Your task to perform on an android device: Open Google Chrome and click the shortcut for Amazon.com Image 0: 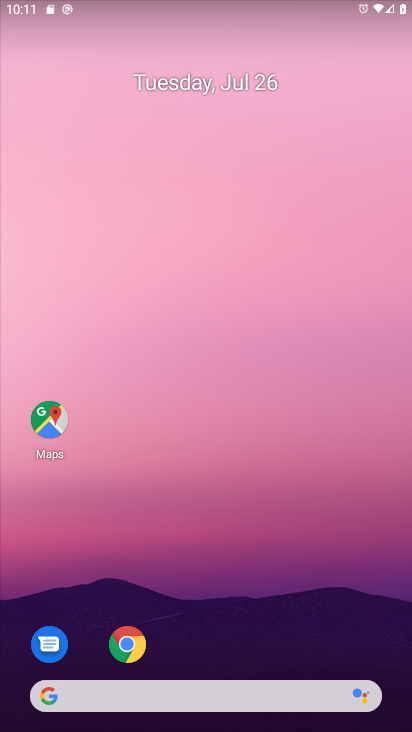
Step 0: click (130, 649)
Your task to perform on an android device: Open Google Chrome and click the shortcut for Amazon.com Image 1: 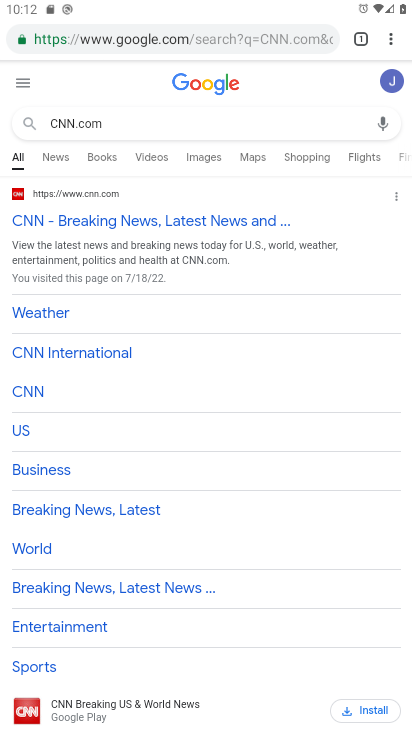
Step 1: click (388, 43)
Your task to perform on an android device: Open Google Chrome and click the shortcut for Amazon.com Image 2: 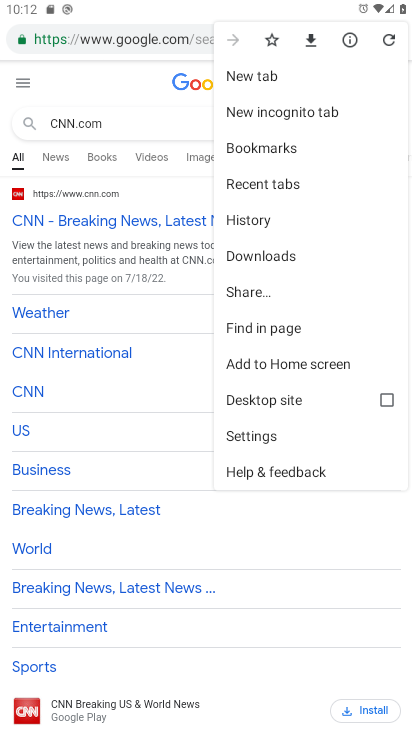
Step 2: click (241, 77)
Your task to perform on an android device: Open Google Chrome and click the shortcut for Amazon.com Image 3: 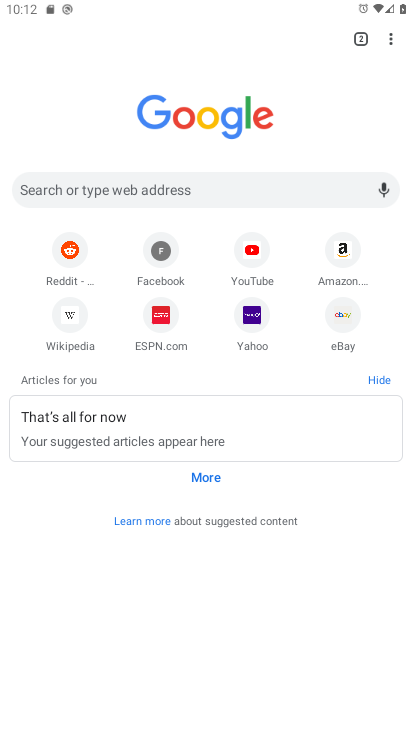
Step 3: click (342, 272)
Your task to perform on an android device: Open Google Chrome and click the shortcut for Amazon.com Image 4: 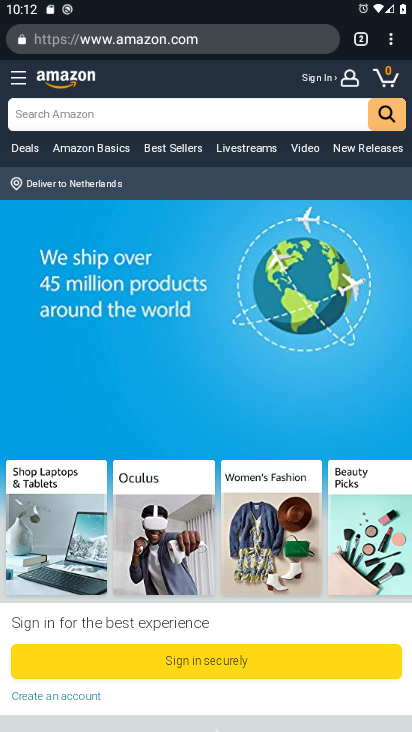
Step 4: task complete